Your task to perform on an android device: Go to Android settings Image 0: 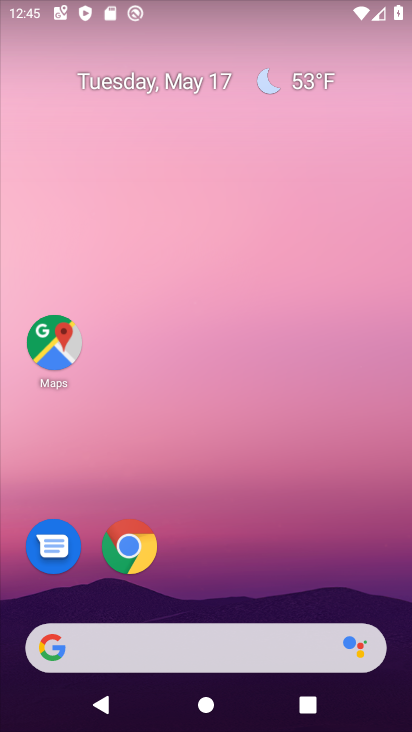
Step 0: drag from (210, 590) to (233, 144)
Your task to perform on an android device: Go to Android settings Image 1: 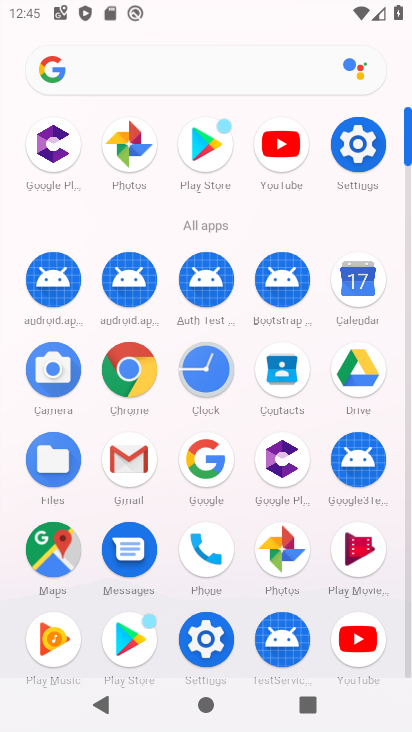
Step 1: click (335, 145)
Your task to perform on an android device: Go to Android settings Image 2: 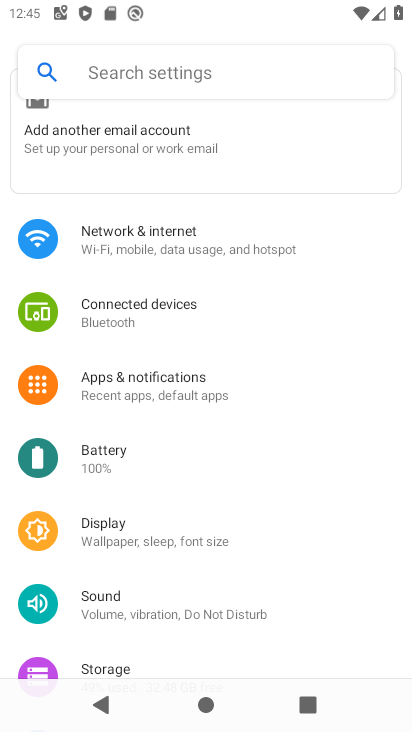
Step 2: task complete